Your task to perform on an android device: Open the map Image 0: 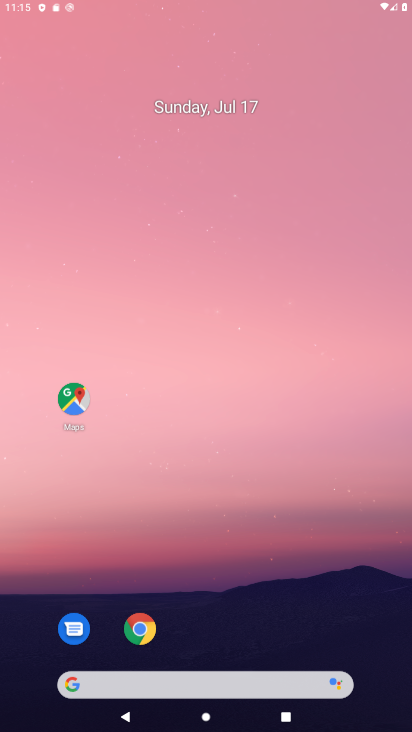
Step 0: click (360, 72)
Your task to perform on an android device: Open the map Image 1: 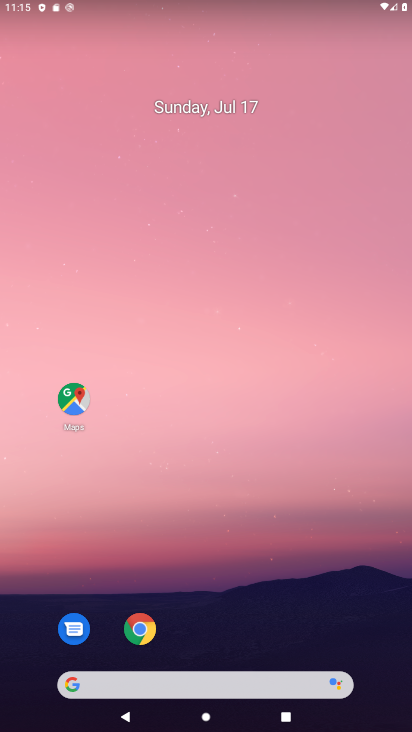
Step 1: press home button
Your task to perform on an android device: Open the map Image 2: 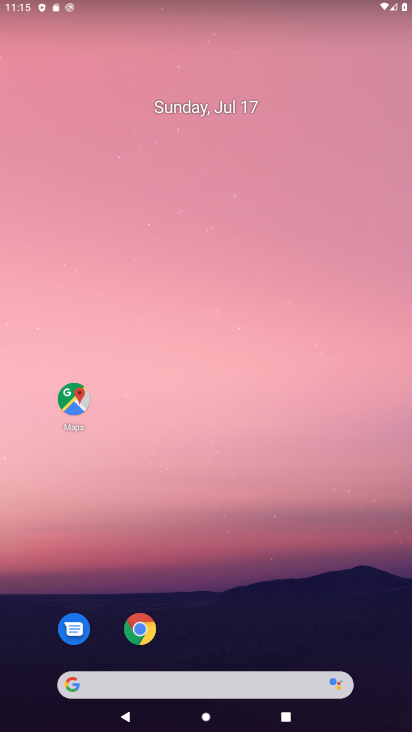
Step 2: drag from (285, 607) to (341, 519)
Your task to perform on an android device: Open the map Image 3: 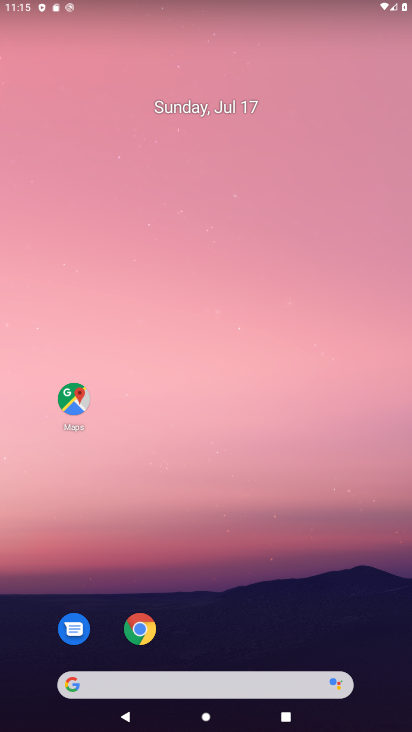
Step 3: click (94, 416)
Your task to perform on an android device: Open the map Image 4: 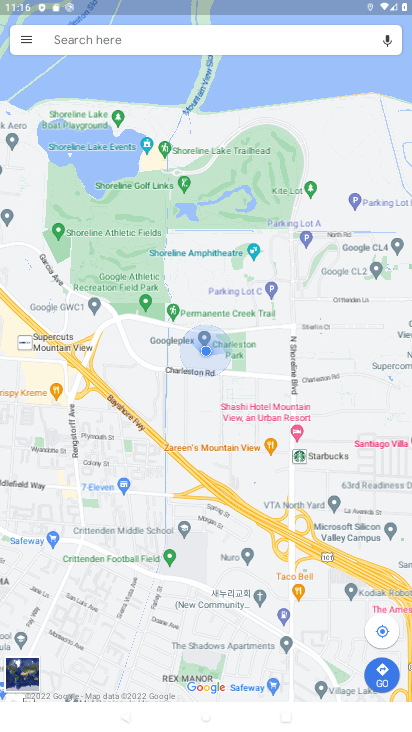
Step 4: task complete